Your task to perform on an android device: Add jbl charge 4 to the cart on walmart, then select checkout. Image 0: 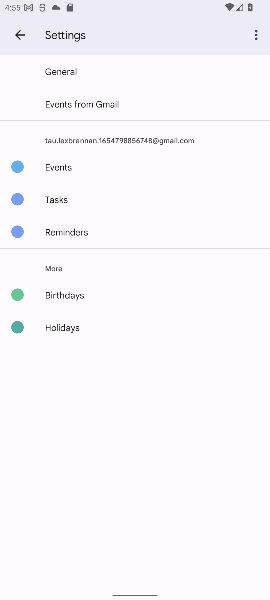
Step 0: press home button
Your task to perform on an android device: Add jbl charge 4 to the cart on walmart, then select checkout. Image 1: 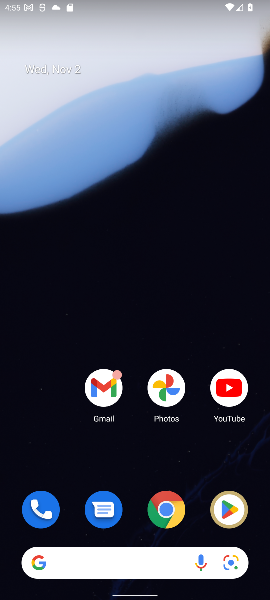
Step 1: click (97, 563)
Your task to perform on an android device: Add jbl charge 4 to the cart on walmart, then select checkout. Image 2: 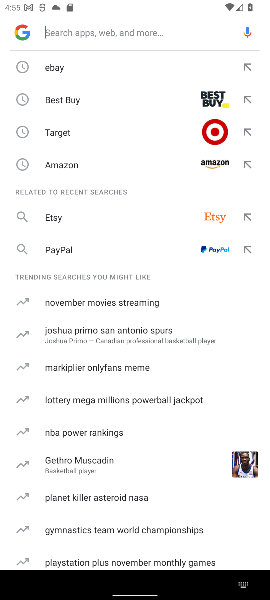
Step 2: type "walmart"
Your task to perform on an android device: Add jbl charge 4 to the cart on walmart, then select checkout. Image 3: 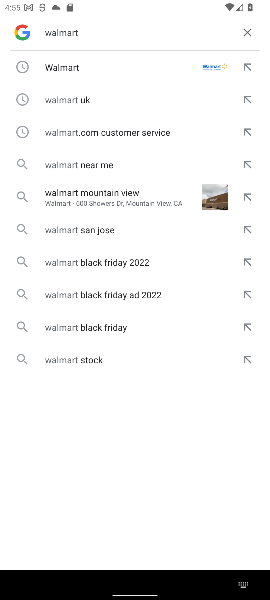
Step 3: click (66, 63)
Your task to perform on an android device: Add jbl charge 4 to the cart on walmart, then select checkout. Image 4: 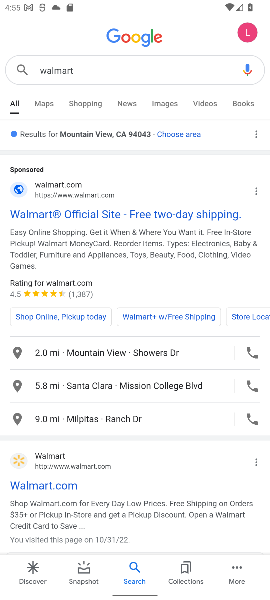
Step 4: click (48, 483)
Your task to perform on an android device: Add jbl charge 4 to the cart on walmart, then select checkout. Image 5: 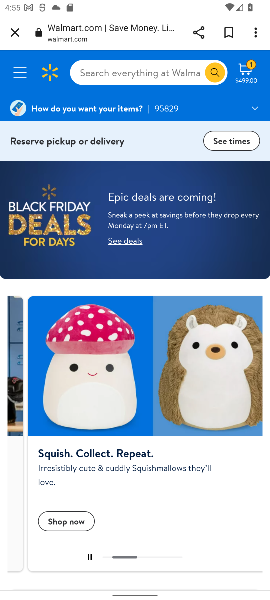
Step 5: click (107, 69)
Your task to perform on an android device: Add jbl charge 4 to the cart on walmart, then select checkout. Image 6: 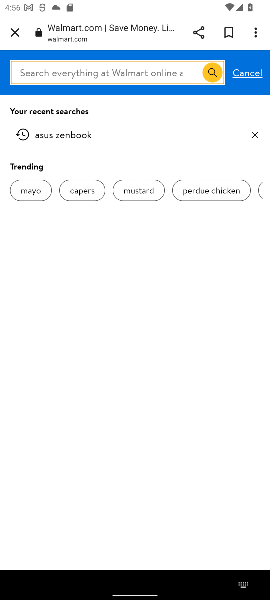
Step 6: type "jbl charger 4"
Your task to perform on an android device: Add jbl charge 4 to the cart on walmart, then select checkout. Image 7: 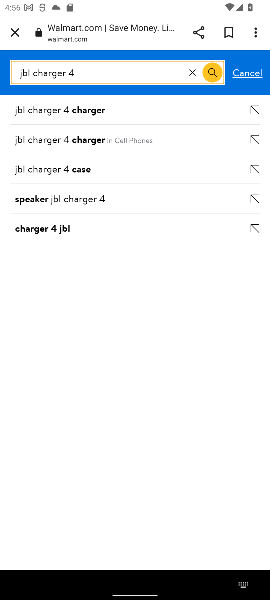
Step 7: click (60, 110)
Your task to perform on an android device: Add jbl charge 4 to the cart on walmart, then select checkout. Image 8: 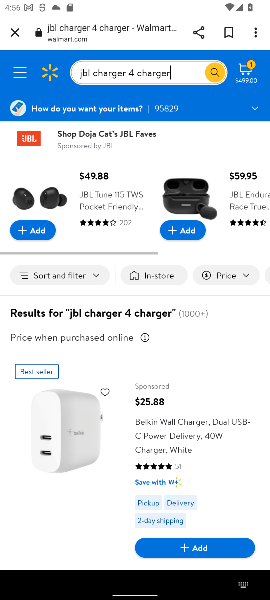
Step 8: click (189, 549)
Your task to perform on an android device: Add jbl charge 4 to the cart on walmart, then select checkout. Image 9: 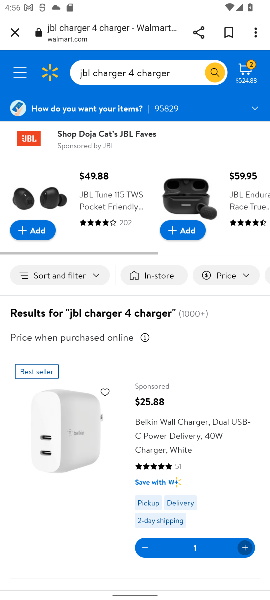
Step 9: click (251, 67)
Your task to perform on an android device: Add jbl charge 4 to the cart on walmart, then select checkout. Image 10: 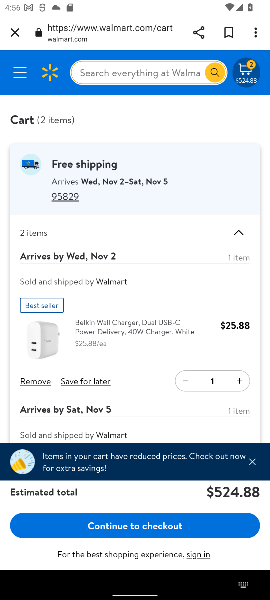
Step 10: click (130, 526)
Your task to perform on an android device: Add jbl charge 4 to the cart on walmart, then select checkout. Image 11: 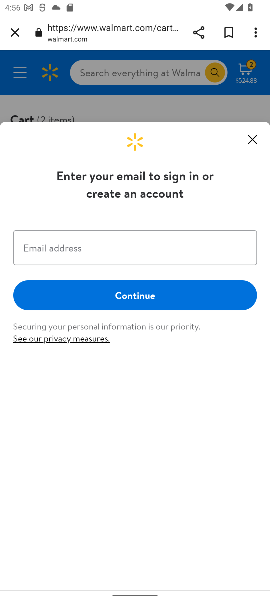
Step 11: task complete